Your task to perform on an android device: Open Google Chrome and click the shortcut for Amazon.com Image 0: 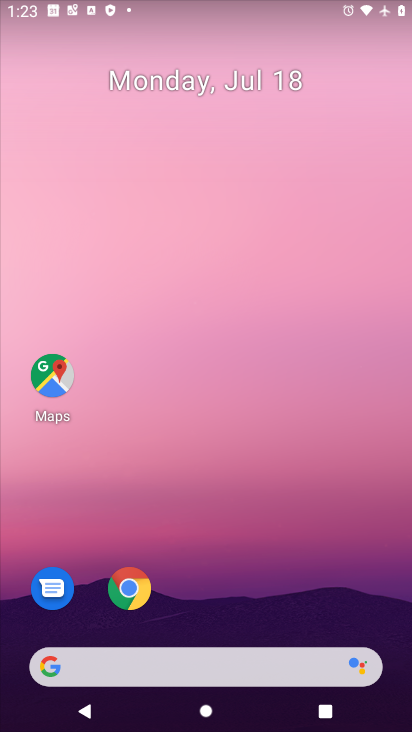
Step 0: drag from (230, 583) to (192, 120)
Your task to perform on an android device: Open Google Chrome and click the shortcut for Amazon.com Image 1: 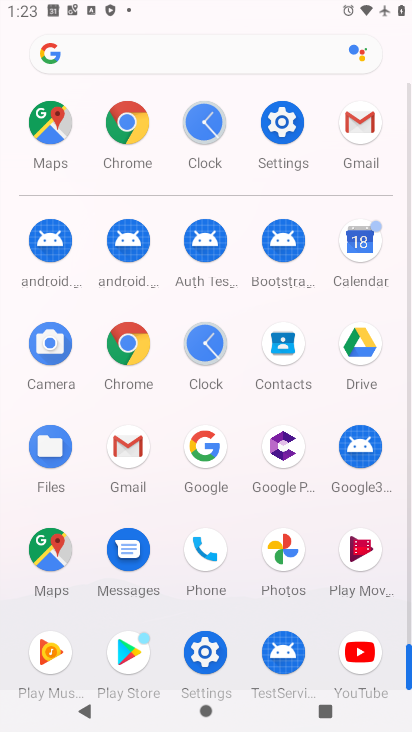
Step 1: click (120, 162)
Your task to perform on an android device: Open Google Chrome and click the shortcut for Amazon.com Image 2: 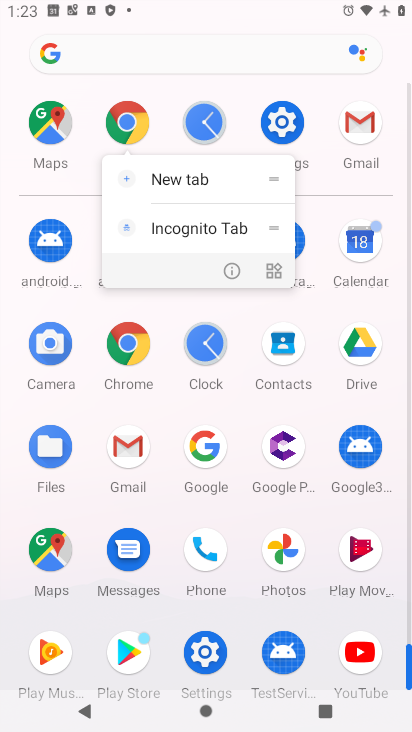
Step 2: click (115, 127)
Your task to perform on an android device: Open Google Chrome and click the shortcut for Amazon.com Image 3: 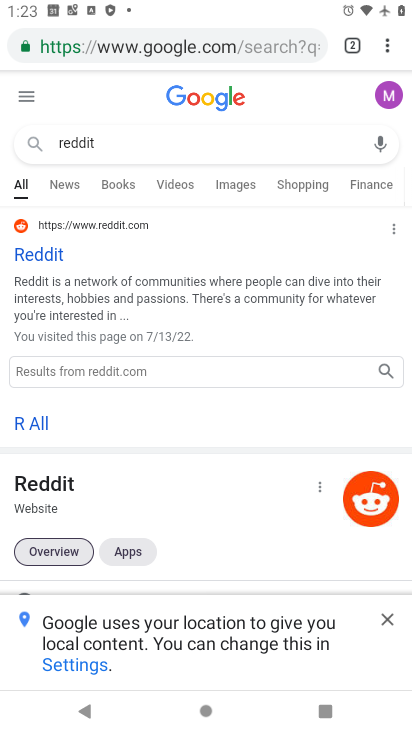
Step 3: click (229, 43)
Your task to perform on an android device: Open Google Chrome and click the shortcut for Amazon.com Image 4: 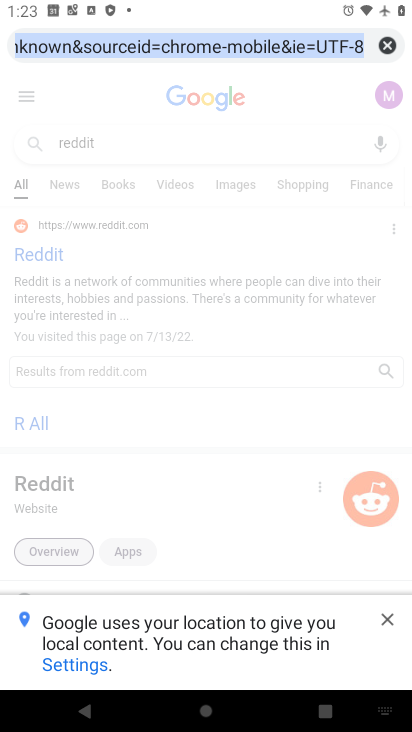
Step 4: type "amazon"
Your task to perform on an android device: Open Google Chrome and click the shortcut for Amazon.com Image 5: 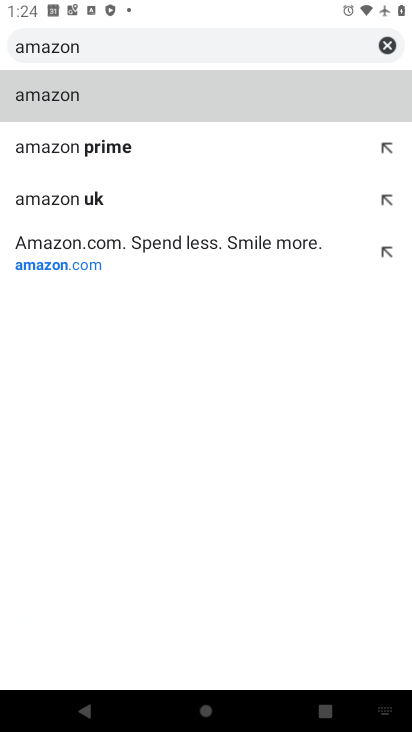
Step 5: click (179, 250)
Your task to perform on an android device: Open Google Chrome and click the shortcut for Amazon.com Image 6: 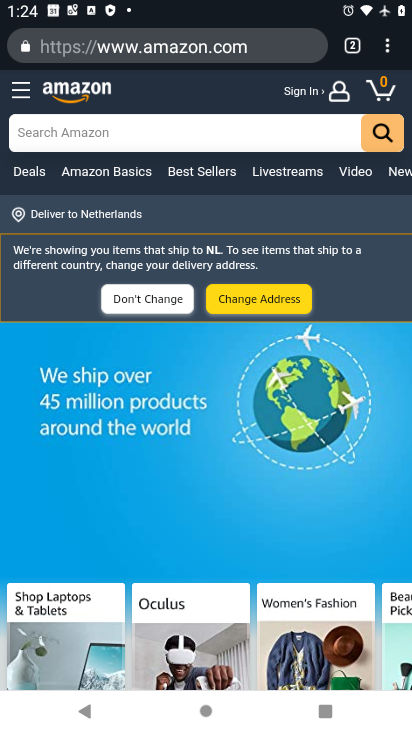
Step 6: task complete